Your task to perform on an android device: Open calendar and show me the fourth week of next month Image 0: 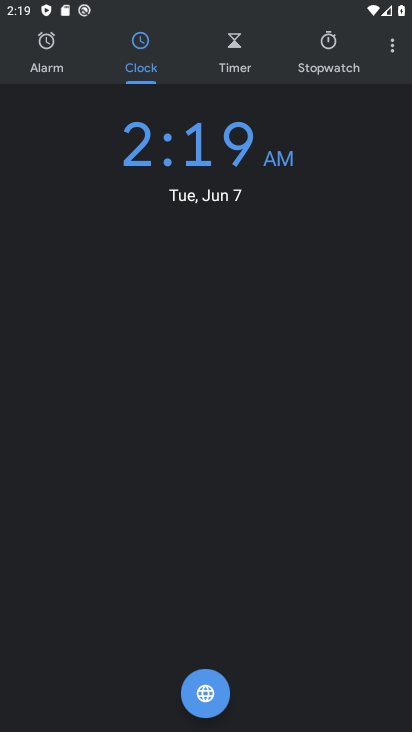
Step 0: press home button
Your task to perform on an android device: Open calendar and show me the fourth week of next month Image 1: 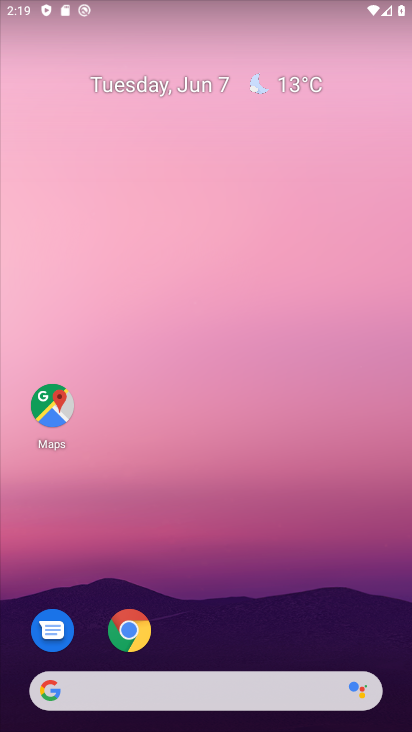
Step 1: drag from (296, 672) to (285, 149)
Your task to perform on an android device: Open calendar and show me the fourth week of next month Image 2: 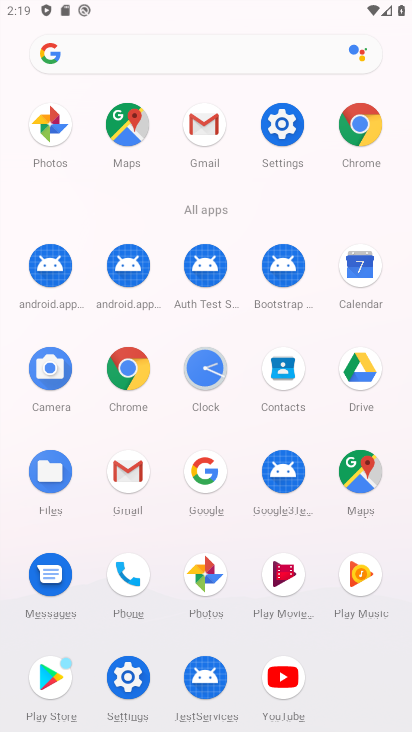
Step 2: click (346, 282)
Your task to perform on an android device: Open calendar and show me the fourth week of next month Image 3: 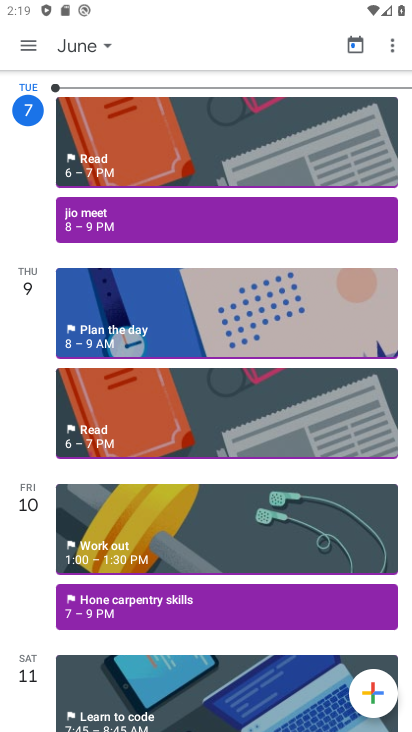
Step 3: click (35, 50)
Your task to perform on an android device: Open calendar and show me the fourth week of next month Image 4: 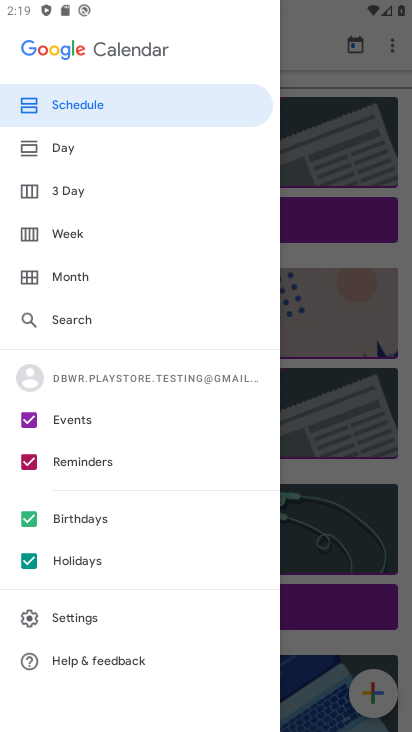
Step 4: click (96, 263)
Your task to perform on an android device: Open calendar and show me the fourth week of next month Image 5: 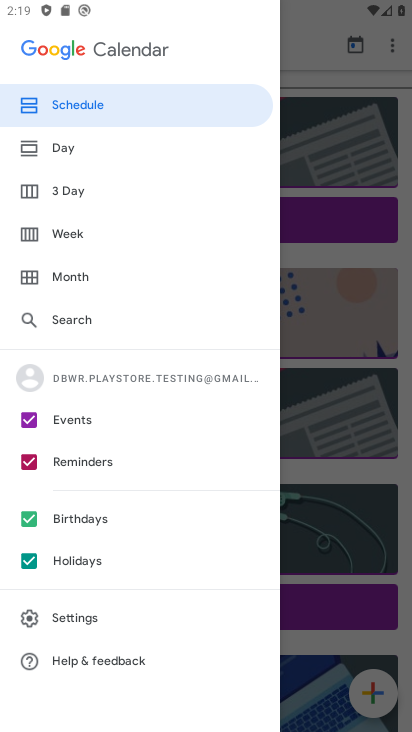
Step 5: click (70, 275)
Your task to perform on an android device: Open calendar and show me the fourth week of next month Image 6: 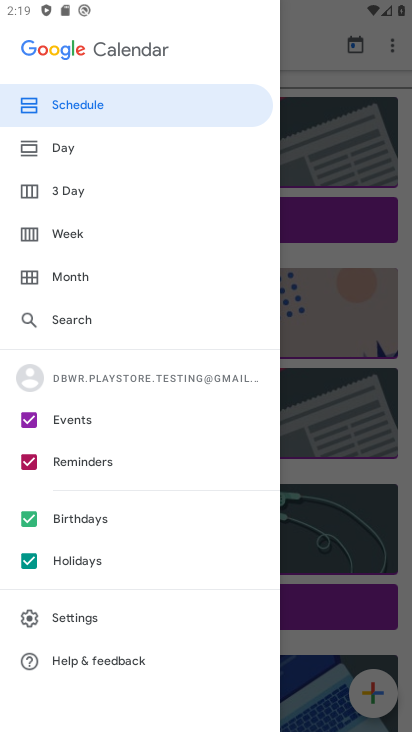
Step 6: click (70, 272)
Your task to perform on an android device: Open calendar and show me the fourth week of next month Image 7: 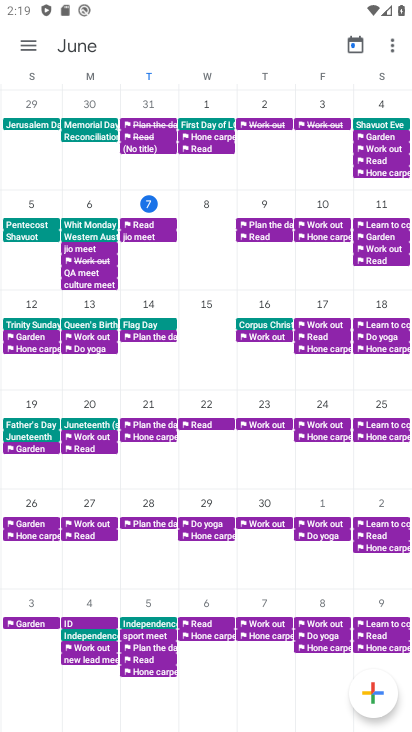
Step 7: task complete